Your task to perform on an android device: read, delete, or share a saved page in the chrome app Image 0: 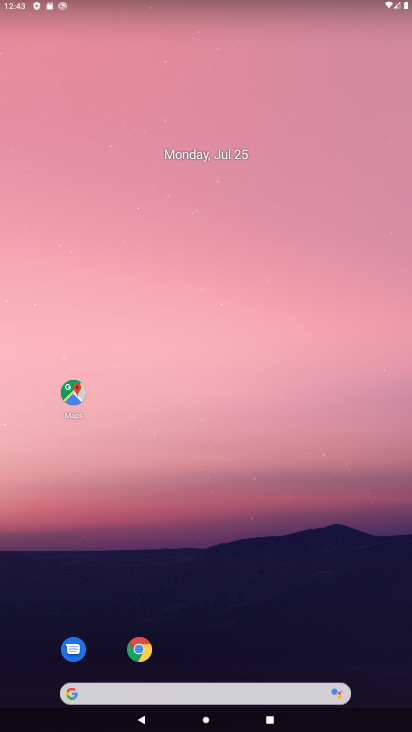
Step 0: click (148, 642)
Your task to perform on an android device: read, delete, or share a saved page in the chrome app Image 1: 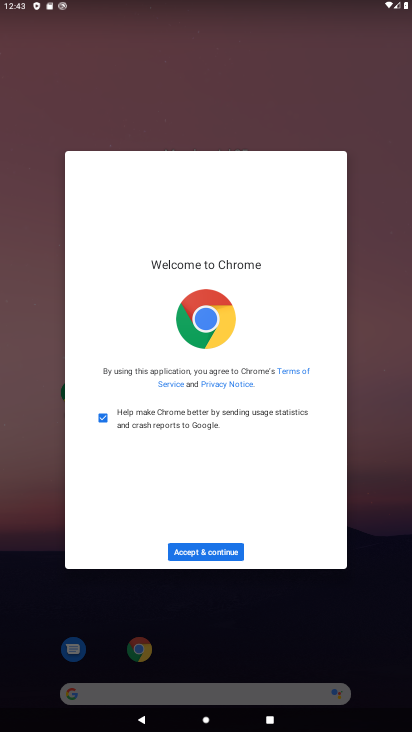
Step 1: click (215, 549)
Your task to perform on an android device: read, delete, or share a saved page in the chrome app Image 2: 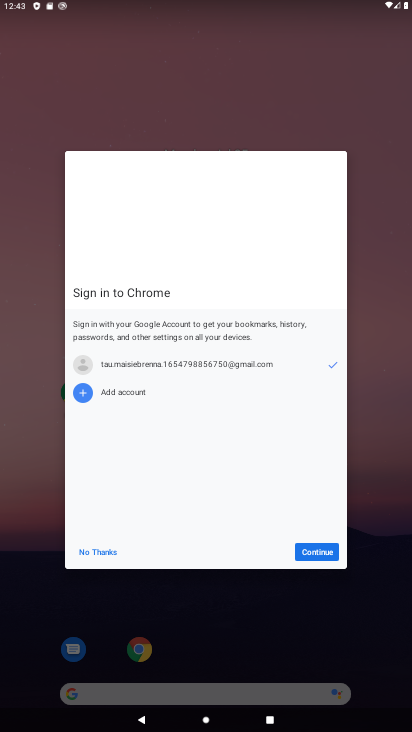
Step 2: click (302, 544)
Your task to perform on an android device: read, delete, or share a saved page in the chrome app Image 3: 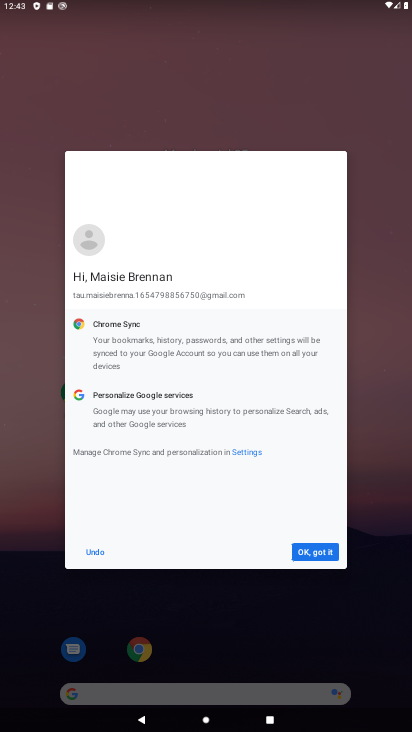
Step 3: click (329, 555)
Your task to perform on an android device: read, delete, or share a saved page in the chrome app Image 4: 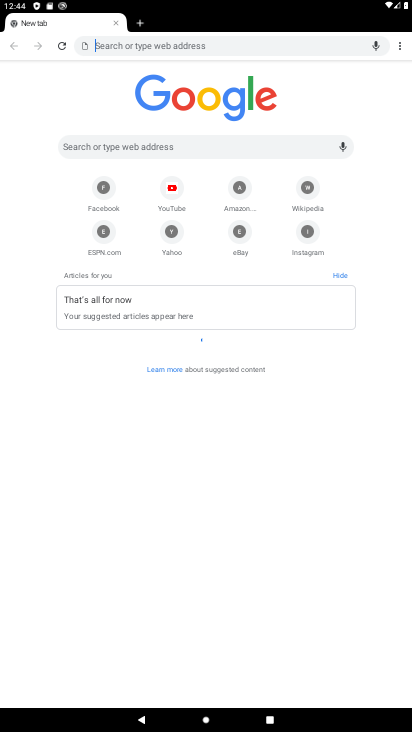
Step 4: task complete